Your task to perform on an android device: open wifi settings Image 0: 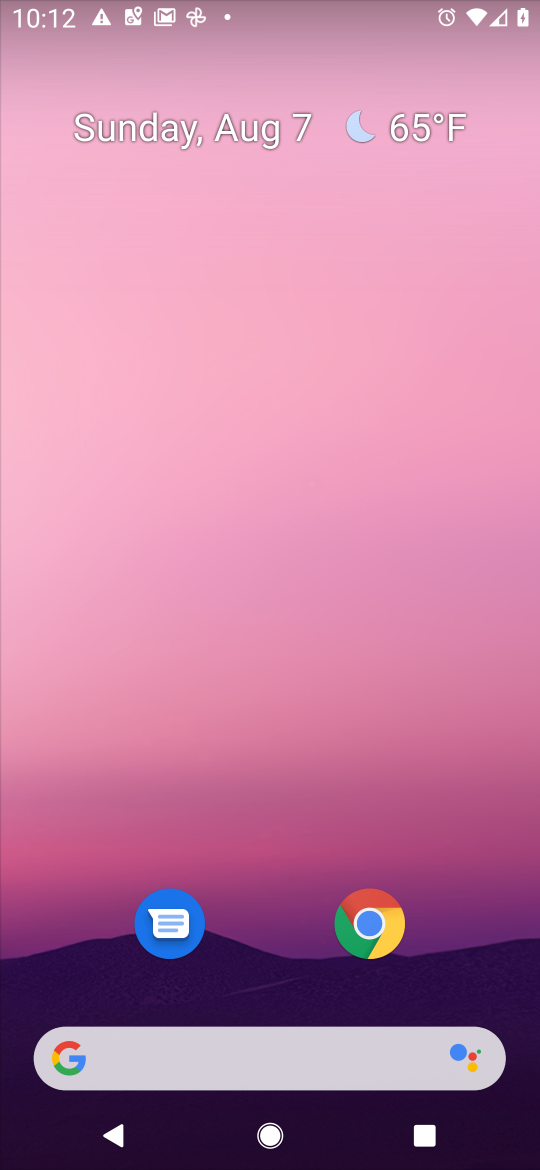
Step 0: drag from (515, 995) to (276, 44)
Your task to perform on an android device: open wifi settings Image 1: 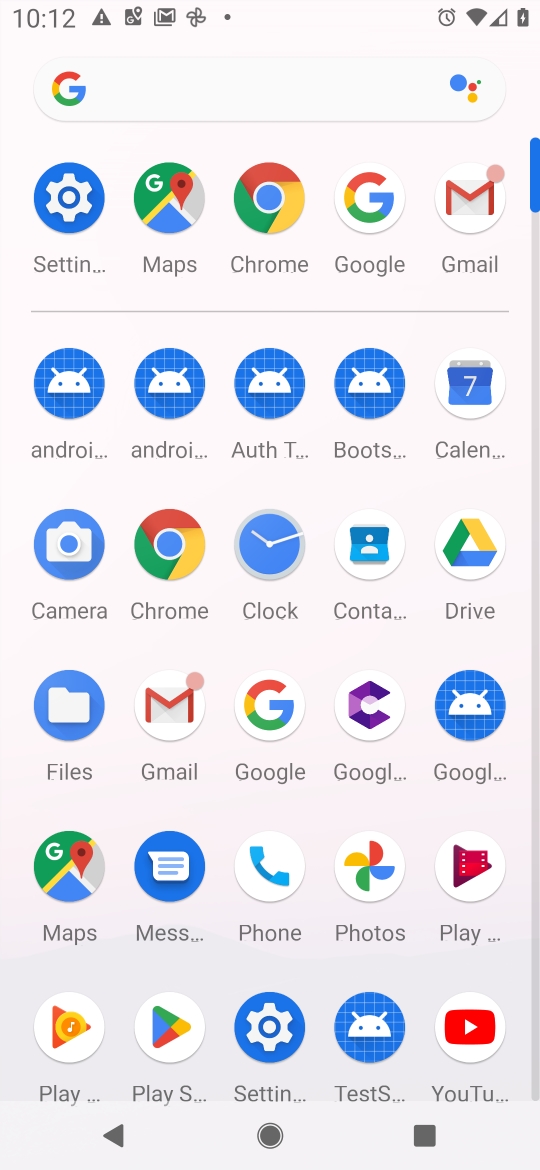
Step 1: click (273, 1043)
Your task to perform on an android device: open wifi settings Image 2: 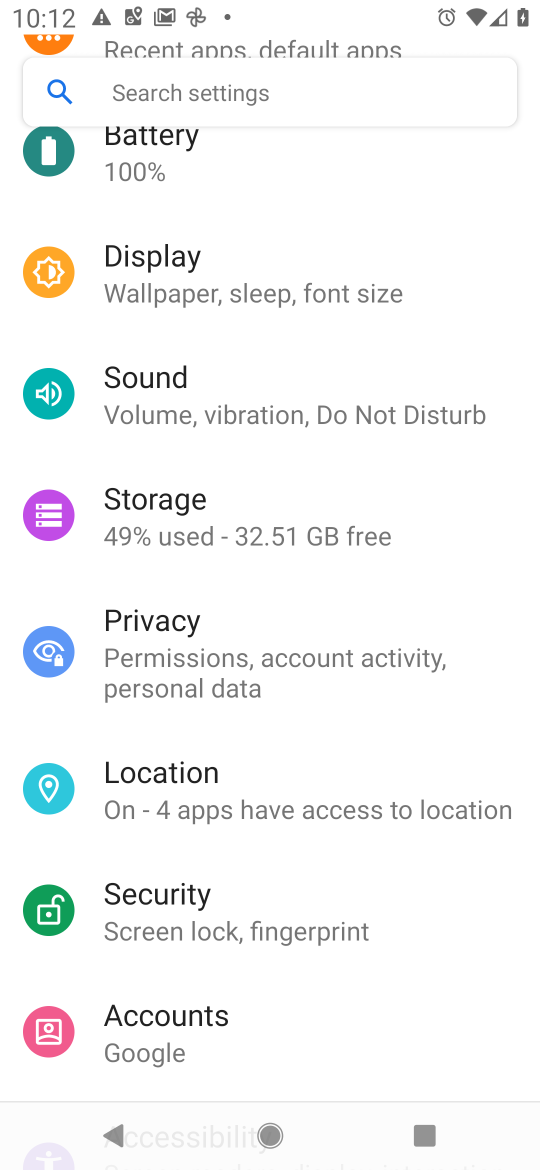
Step 2: drag from (216, 174) to (233, 1151)
Your task to perform on an android device: open wifi settings Image 3: 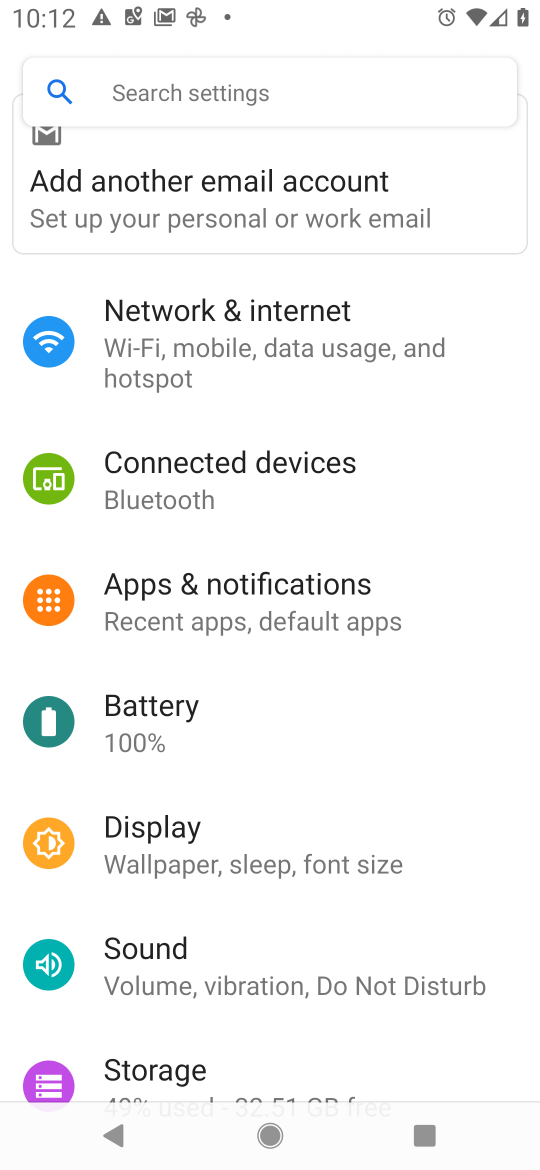
Step 3: drag from (171, 325) to (244, 995)
Your task to perform on an android device: open wifi settings Image 4: 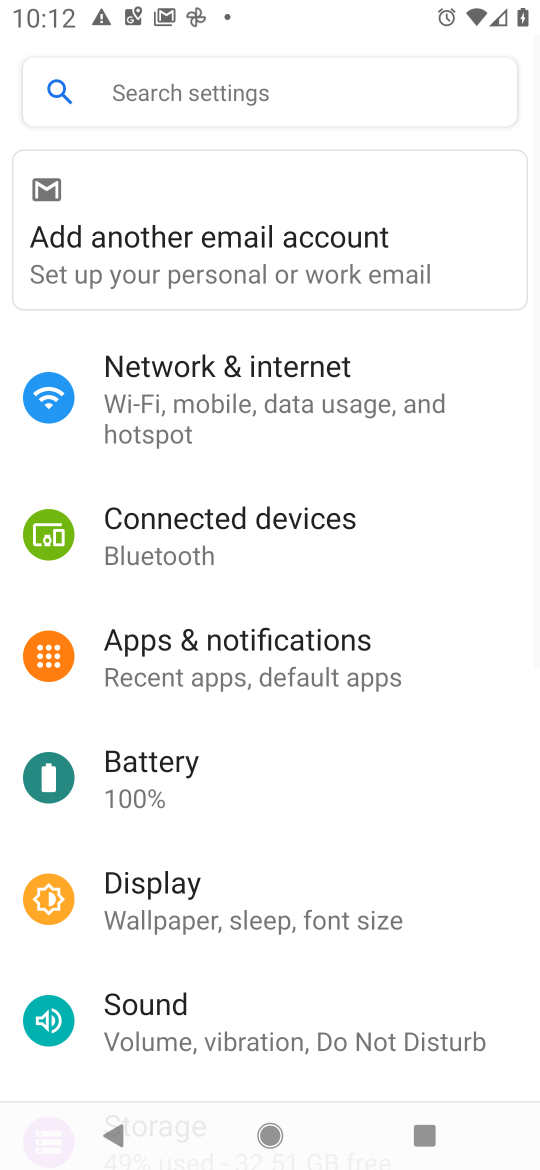
Step 4: click (281, 412)
Your task to perform on an android device: open wifi settings Image 5: 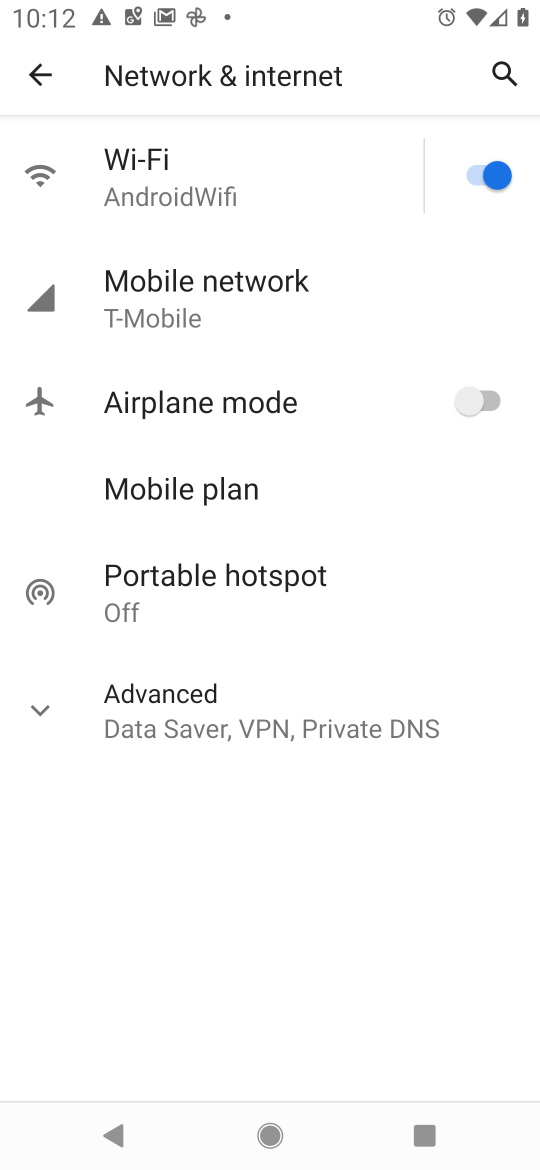
Step 5: click (159, 198)
Your task to perform on an android device: open wifi settings Image 6: 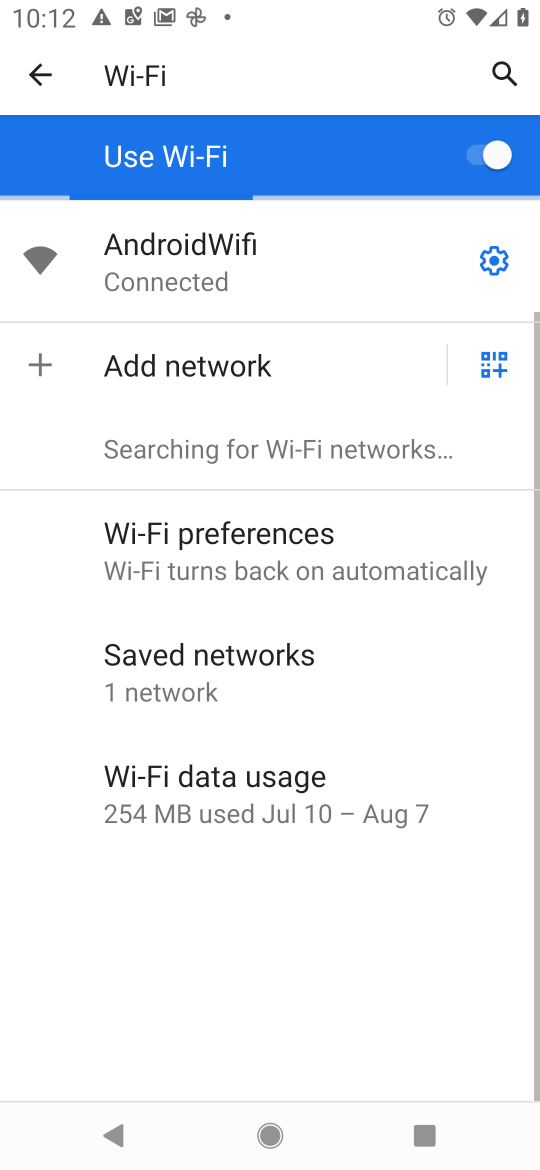
Step 6: task complete